Your task to perform on an android device: turn on priority inbox in the gmail app Image 0: 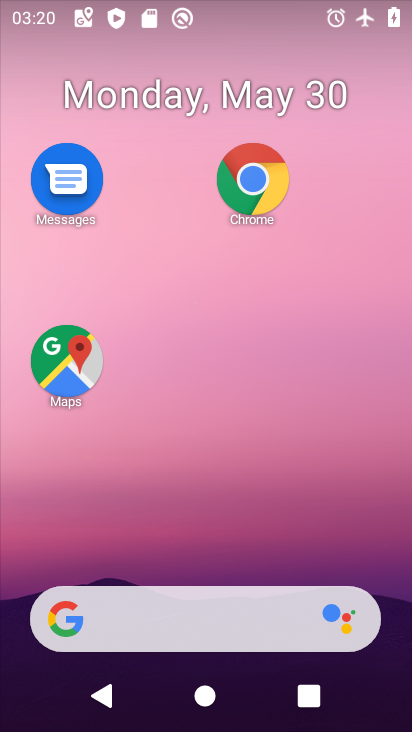
Step 0: drag from (189, 556) to (229, 2)
Your task to perform on an android device: turn on priority inbox in the gmail app Image 1: 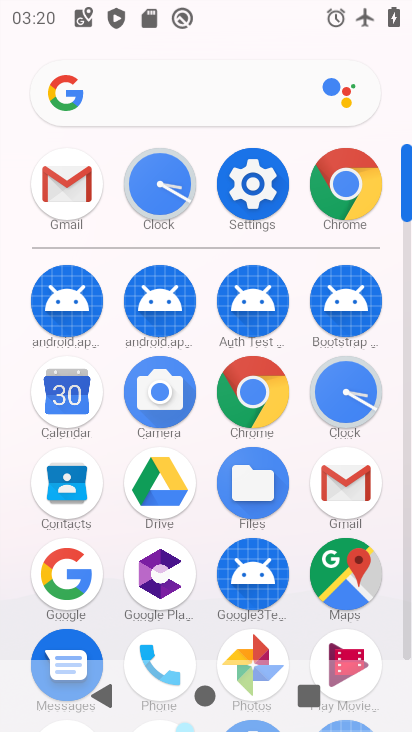
Step 1: click (344, 494)
Your task to perform on an android device: turn on priority inbox in the gmail app Image 2: 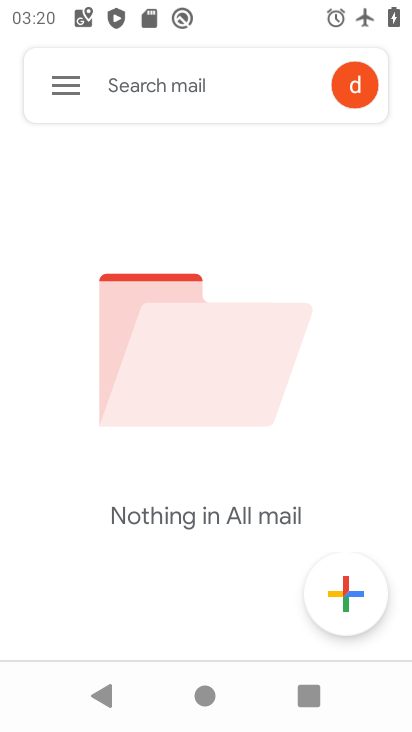
Step 2: click (61, 88)
Your task to perform on an android device: turn on priority inbox in the gmail app Image 3: 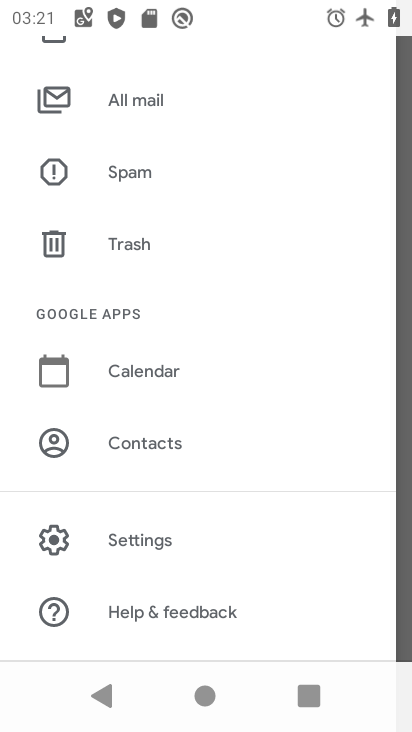
Step 3: click (147, 538)
Your task to perform on an android device: turn on priority inbox in the gmail app Image 4: 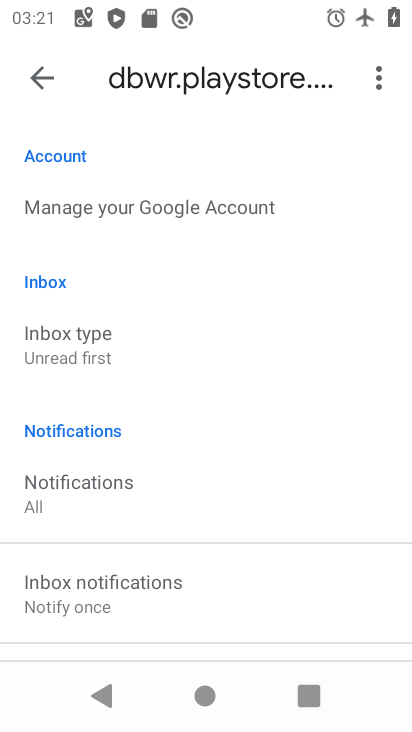
Step 4: drag from (87, 338) to (78, 576)
Your task to perform on an android device: turn on priority inbox in the gmail app Image 5: 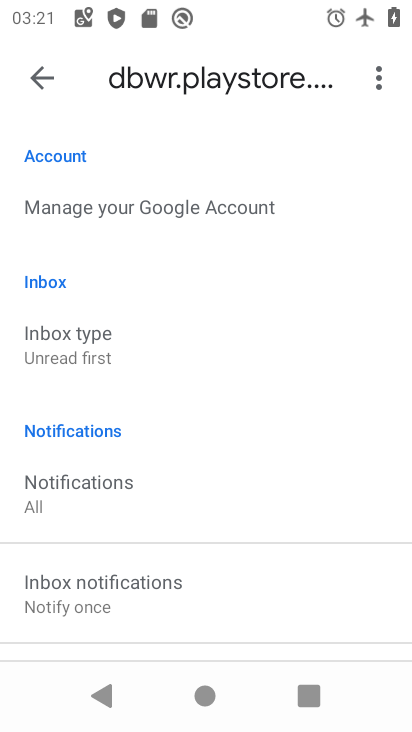
Step 5: click (81, 336)
Your task to perform on an android device: turn on priority inbox in the gmail app Image 6: 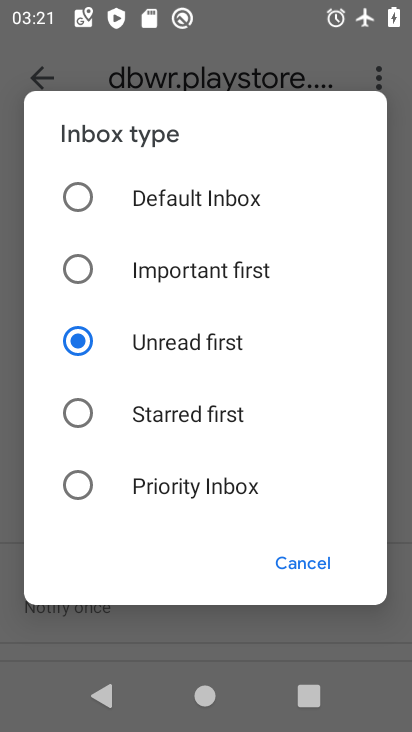
Step 6: click (81, 497)
Your task to perform on an android device: turn on priority inbox in the gmail app Image 7: 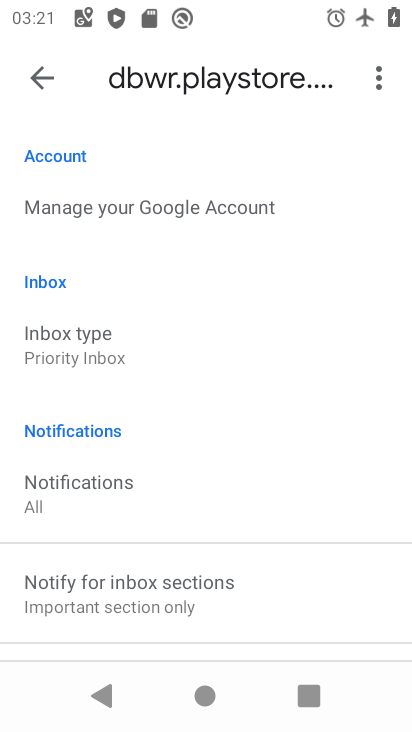
Step 7: task complete